Your task to perform on an android device: change notifications settings Image 0: 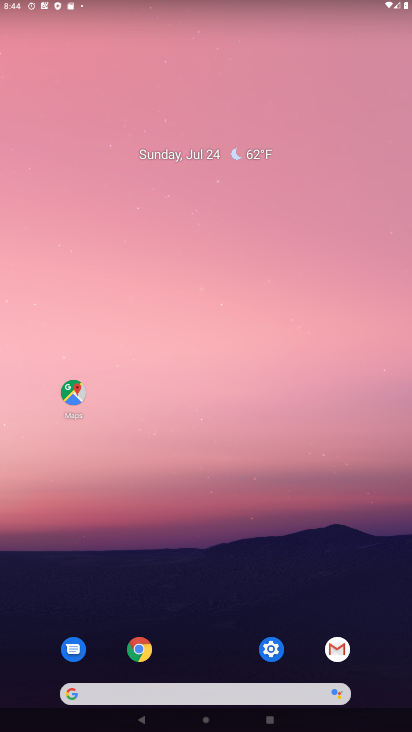
Step 0: drag from (265, 711) to (135, 281)
Your task to perform on an android device: change notifications settings Image 1: 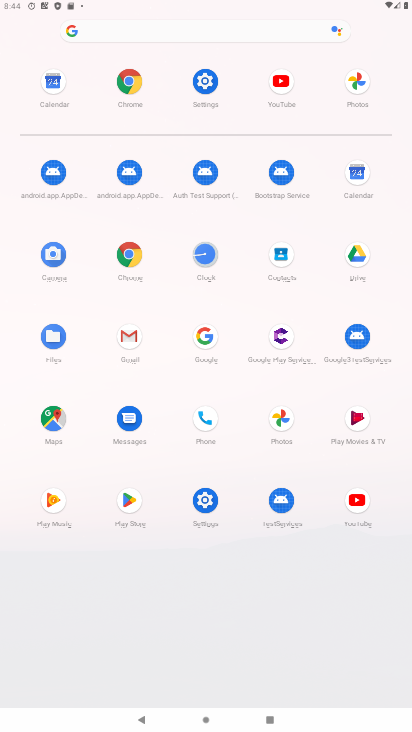
Step 1: click (199, 503)
Your task to perform on an android device: change notifications settings Image 2: 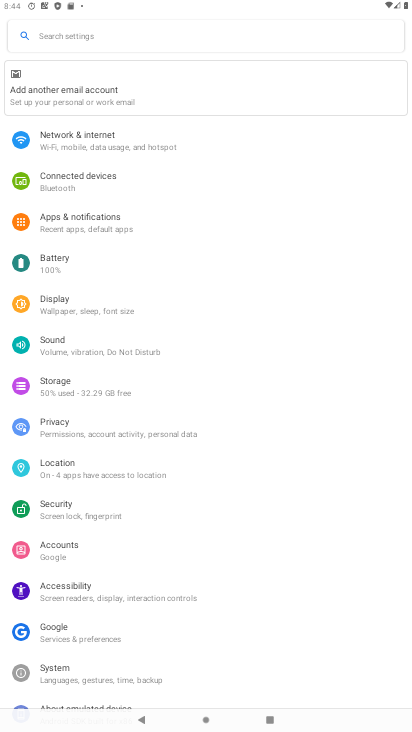
Step 2: click (96, 219)
Your task to perform on an android device: change notifications settings Image 3: 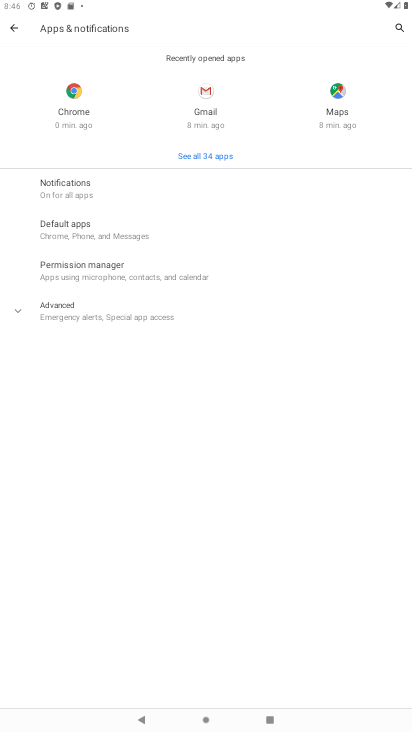
Step 3: task complete